Your task to perform on an android device: Open maps Image 0: 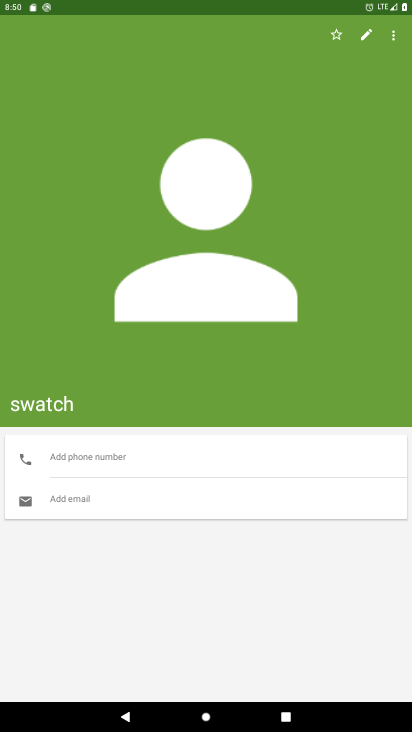
Step 0: press home button
Your task to perform on an android device: Open maps Image 1: 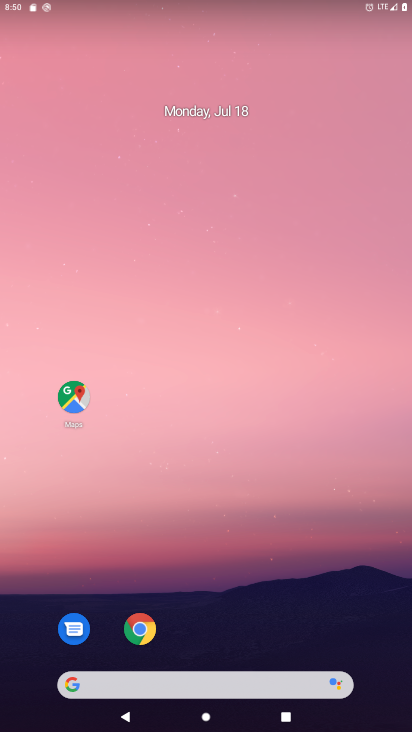
Step 1: drag from (221, 600) to (146, 29)
Your task to perform on an android device: Open maps Image 2: 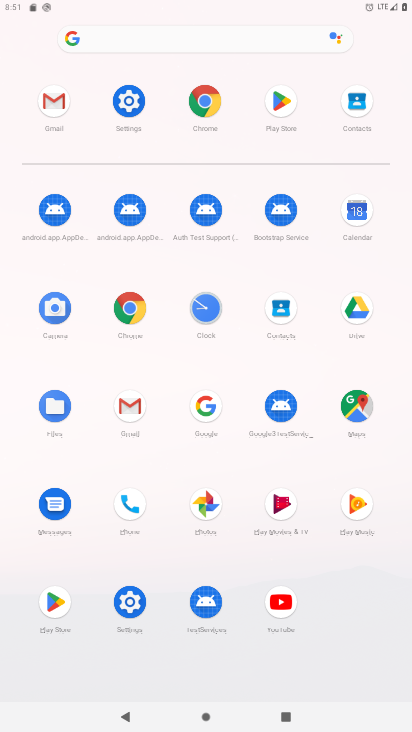
Step 2: click (365, 412)
Your task to perform on an android device: Open maps Image 3: 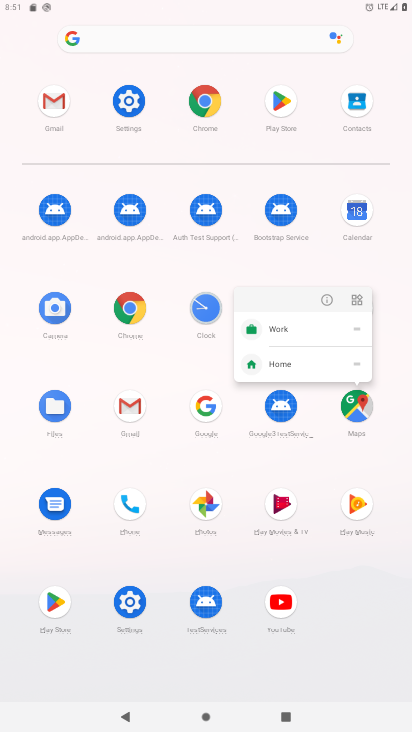
Step 3: click (355, 409)
Your task to perform on an android device: Open maps Image 4: 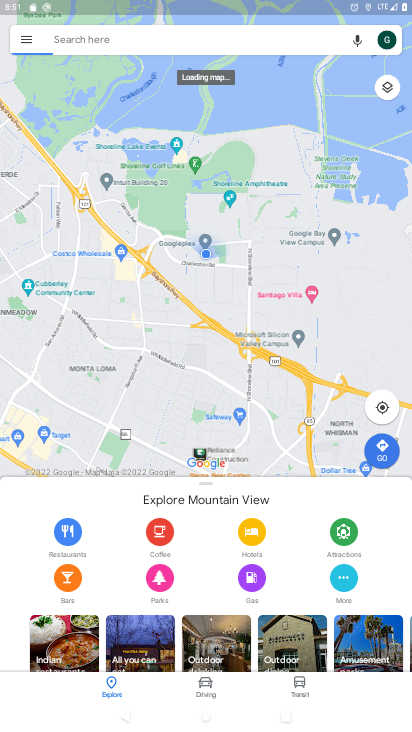
Step 4: task complete